Your task to perform on an android device: turn on notifications settings in the gmail app Image 0: 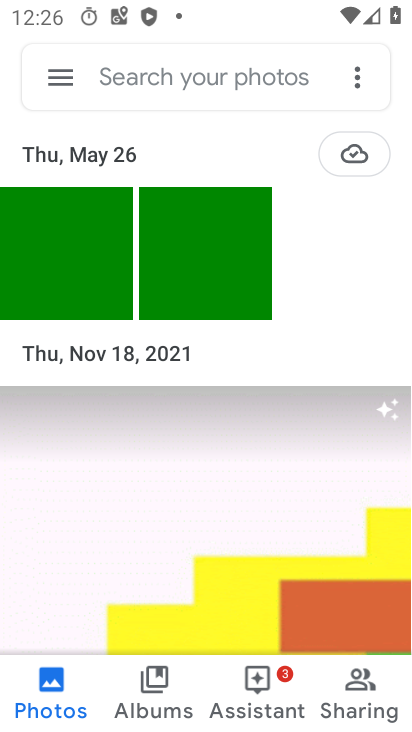
Step 0: click (57, 83)
Your task to perform on an android device: turn on notifications settings in the gmail app Image 1: 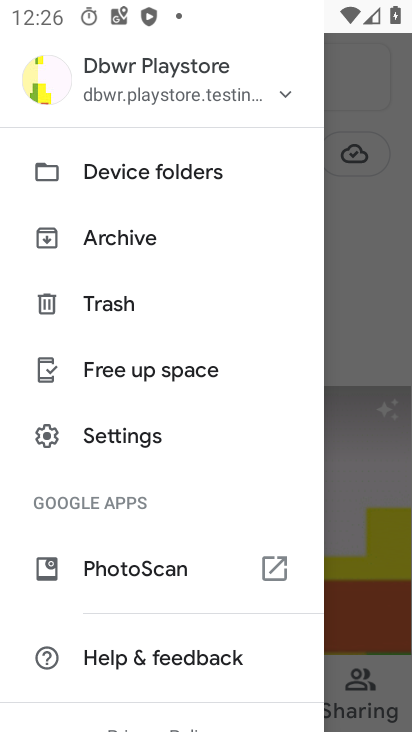
Step 1: click (149, 450)
Your task to perform on an android device: turn on notifications settings in the gmail app Image 2: 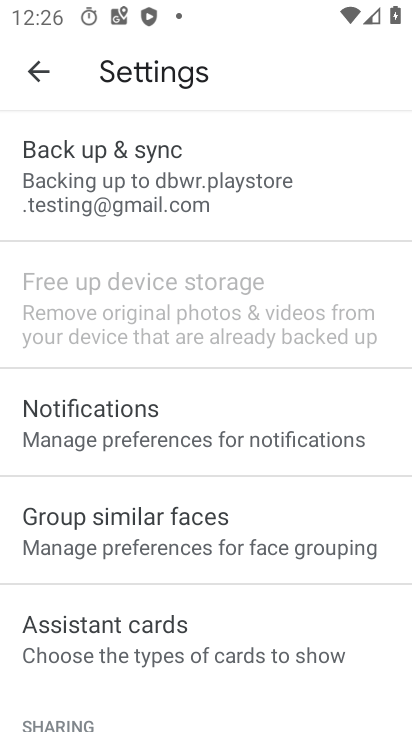
Step 2: click (245, 445)
Your task to perform on an android device: turn on notifications settings in the gmail app Image 3: 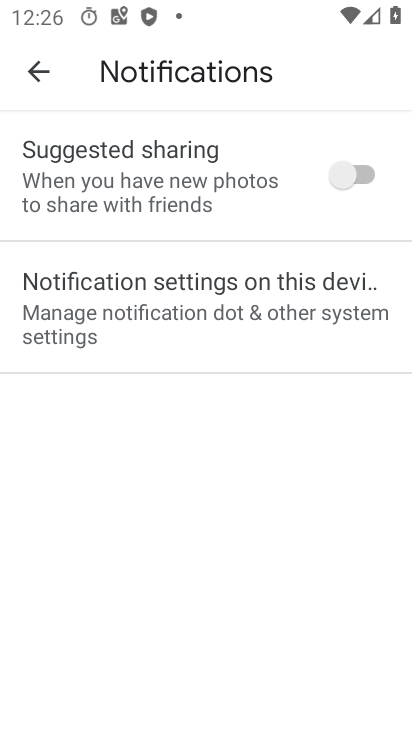
Step 3: click (281, 323)
Your task to perform on an android device: turn on notifications settings in the gmail app Image 4: 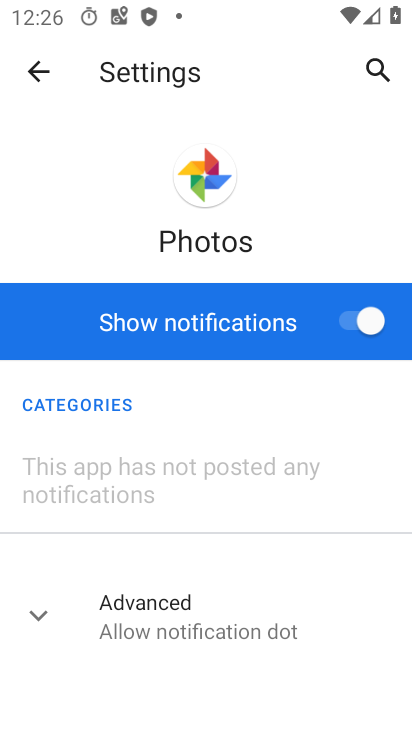
Step 4: task complete